Your task to perform on an android device: Open wifi settings Image 0: 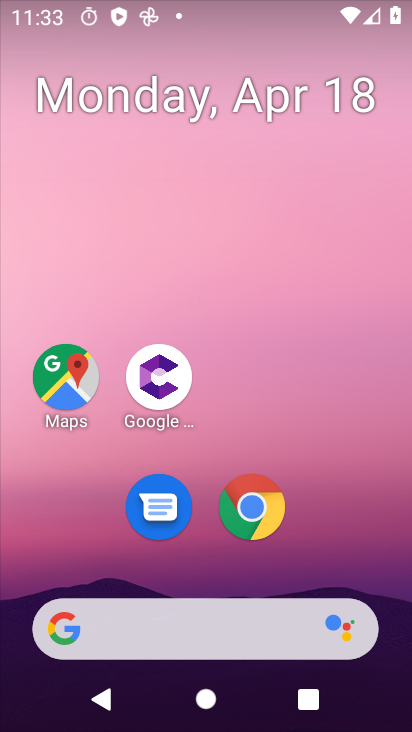
Step 0: drag from (231, 655) to (368, 118)
Your task to perform on an android device: Open wifi settings Image 1: 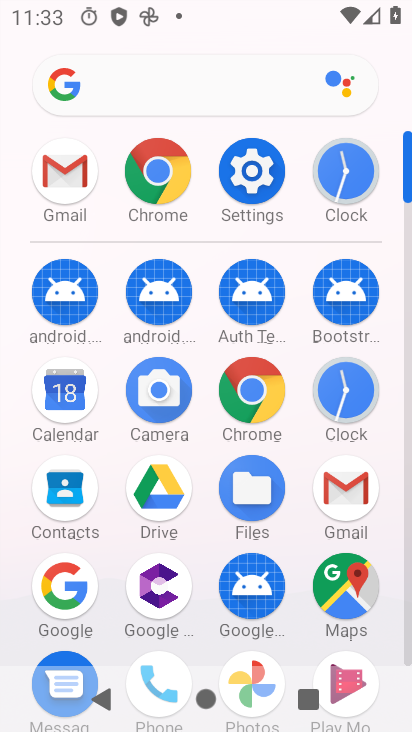
Step 1: click (269, 185)
Your task to perform on an android device: Open wifi settings Image 2: 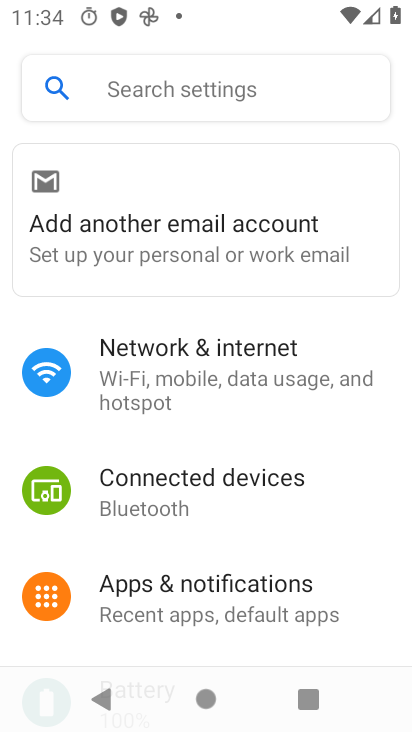
Step 2: click (156, 360)
Your task to perform on an android device: Open wifi settings Image 3: 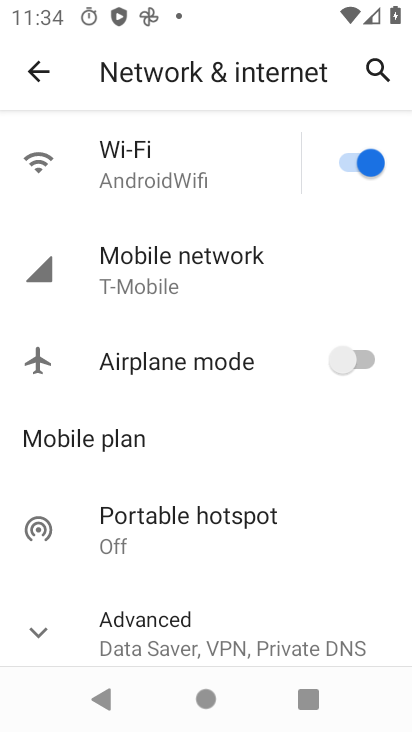
Step 3: click (190, 185)
Your task to perform on an android device: Open wifi settings Image 4: 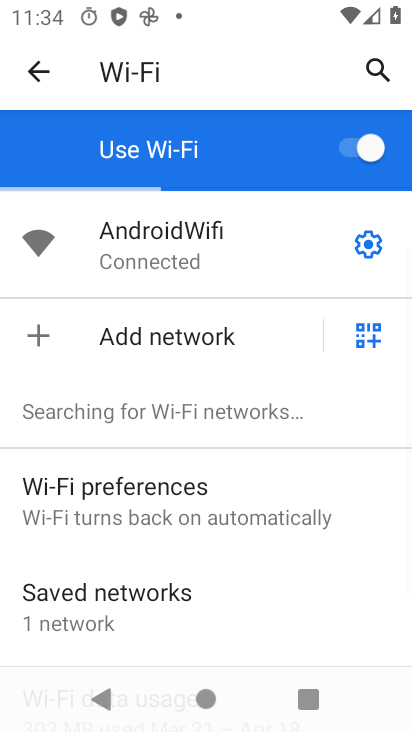
Step 4: task complete